Your task to perform on an android device: Open calendar and show me the first week of next month Image 0: 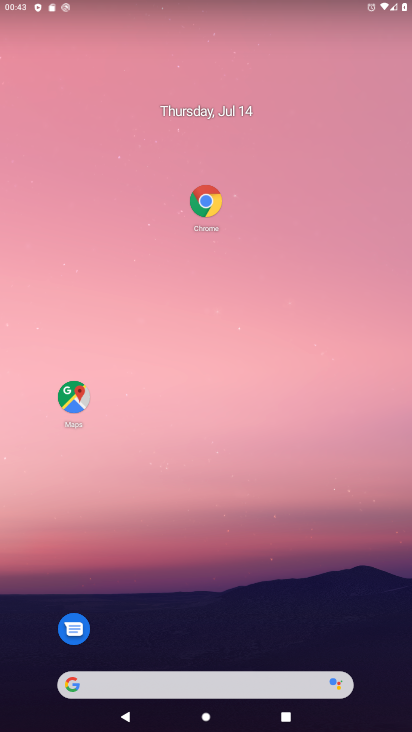
Step 0: drag from (212, 629) to (339, 35)
Your task to perform on an android device: Open calendar and show me the first week of next month Image 1: 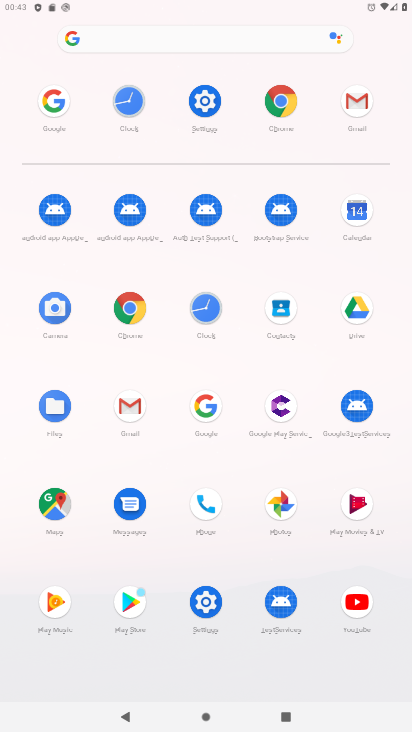
Step 1: click (351, 213)
Your task to perform on an android device: Open calendar and show me the first week of next month Image 2: 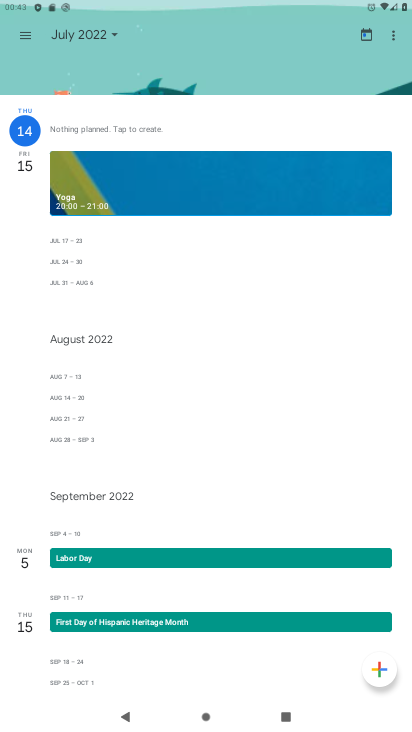
Step 2: click (21, 40)
Your task to perform on an android device: Open calendar and show me the first week of next month Image 3: 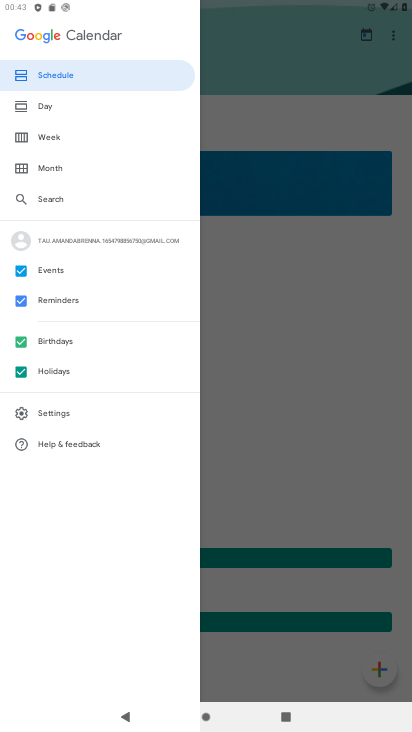
Step 3: click (31, 132)
Your task to perform on an android device: Open calendar and show me the first week of next month Image 4: 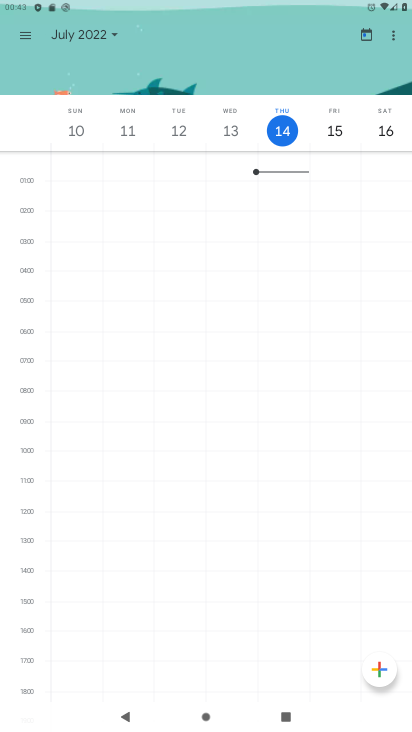
Step 4: task complete